Your task to perform on an android device: turn off javascript in the chrome app Image 0: 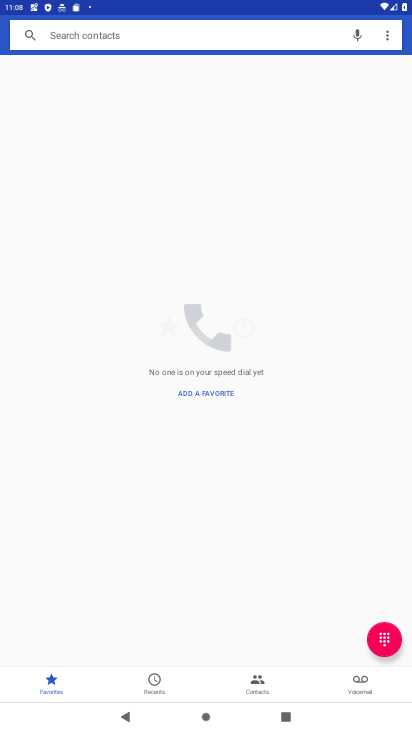
Step 0: press home button
Your task to perform on an android device: turn off javascript in the chrome app Image 1: 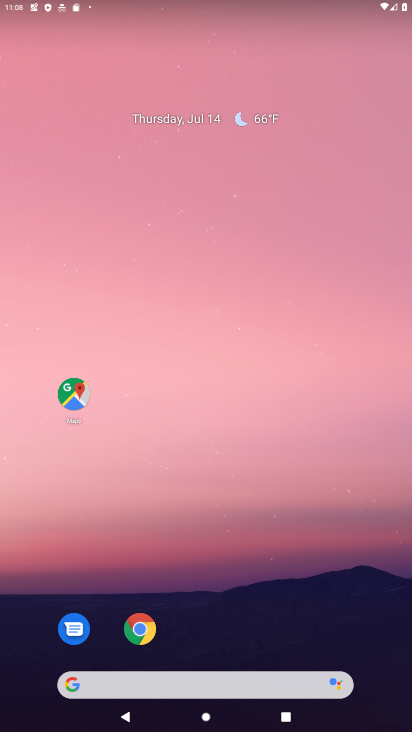
Step 1: click (140, 632)
Your task to perform on an android device: turn off javascript in the chrome app Image 2: 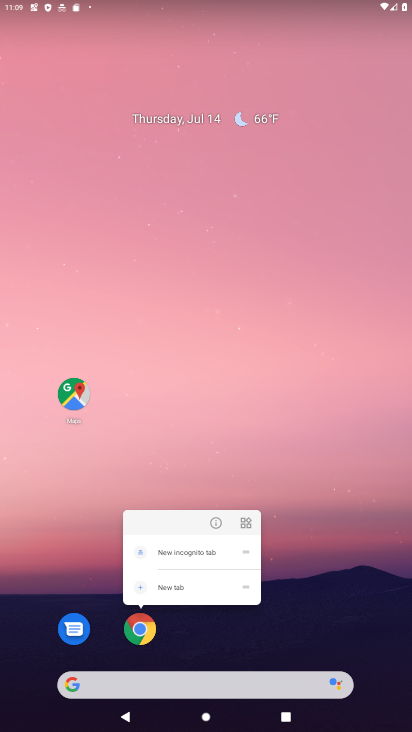
Step 2: click (140, 632)
Your task to perform on an android device: turn off javascript in the chrome app Image 3: 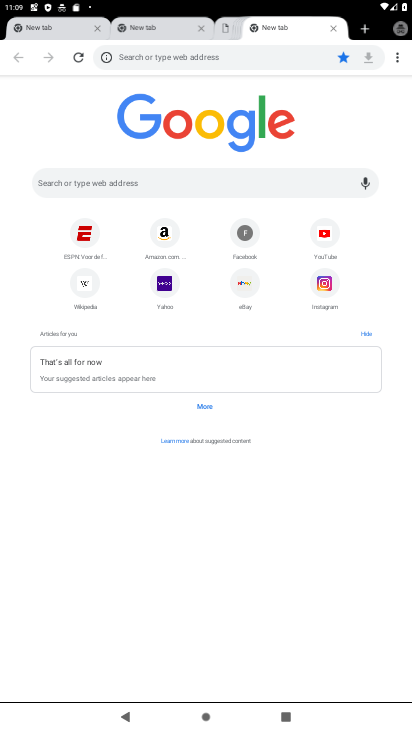
Step 3: drag from (395, 63) to (281, 268)
Your task to perform on an android device: turn off javascript in the chrome app Image 4: 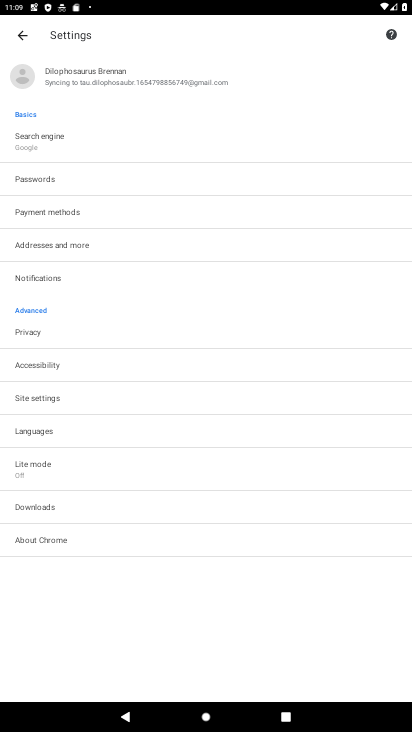
Step 4: click (37, 395)
Your task to perform on an android device: turn off javascript in the chrome app Image 5: 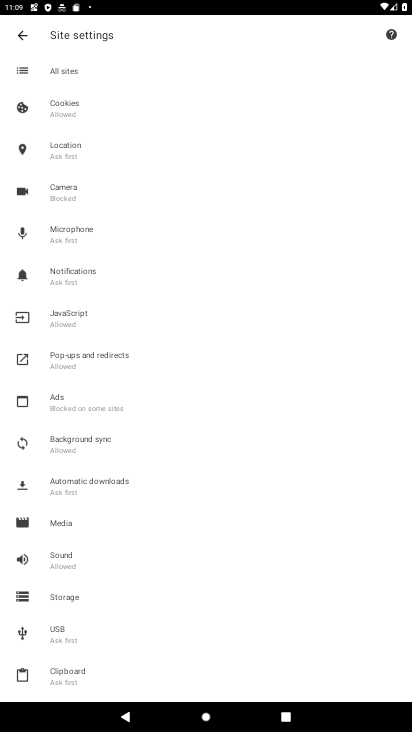
Step 5: click (59, 308)
Your task to perform on an android device: turn off javascript in the chrome app Image 6: 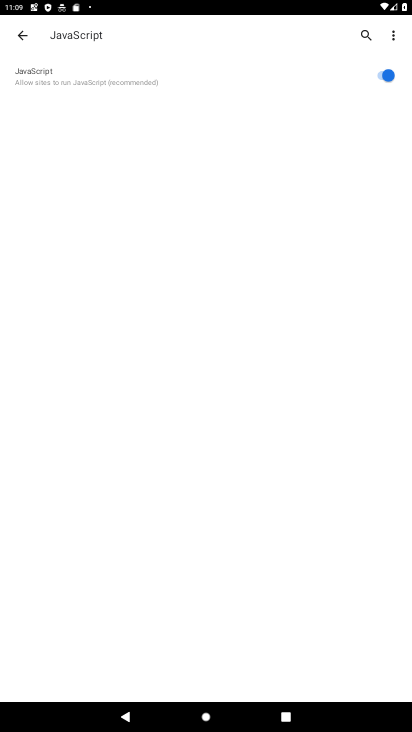
Step 6: click (381, 76)
Your task to perform on an android device: turn off javascript in the chrome app Image 7: 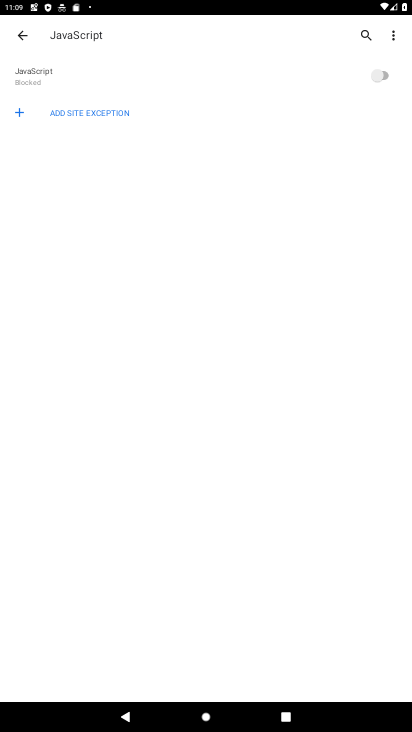
Step 7: task complete